Your task to perform on an android device: Show me productivity apps on the Play Store Image 0: 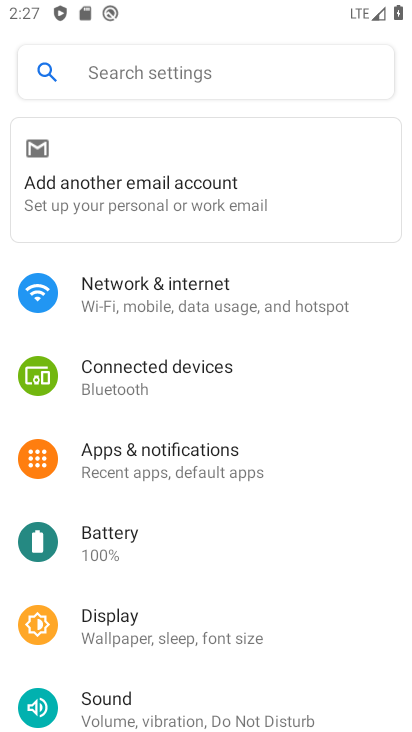
Step 0: press home button
Your task to perform on an android device: Show me productivity apps on the Play Store Image 1: 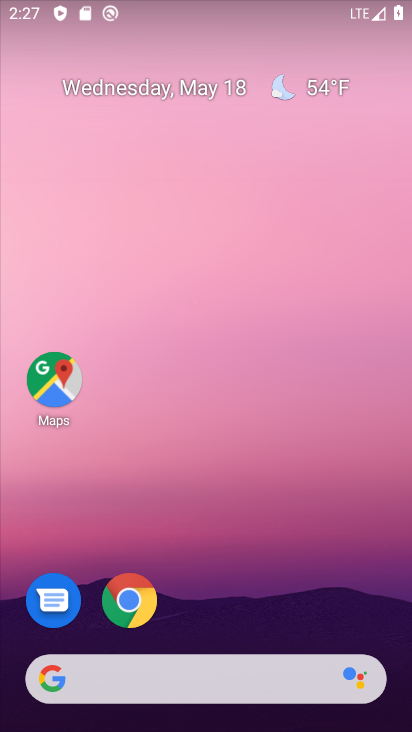
Step 1: drag from (128, 678) to (296, 81)
Your task to perform on an android device: Show me productivity apps on the Play Store Image 2: 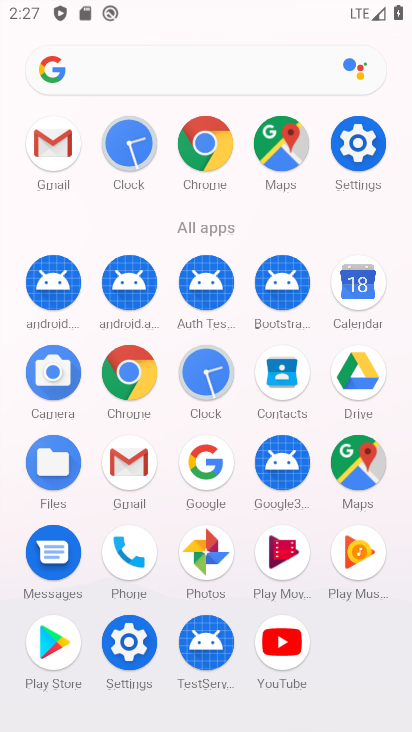
Step 2: click (56, 651)
Your task to perform on an android device: Show me productivity apps on the Play Store Image 3: 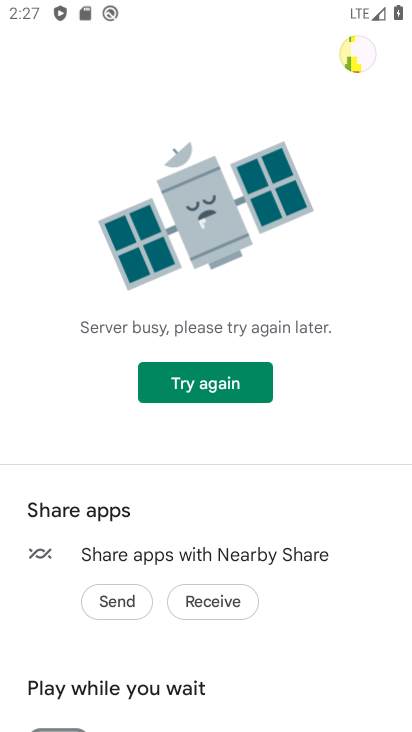
Step 3: click (220, 384)
Your task to perform on an android device: Show me productivity apps on the Play Store Image 4: 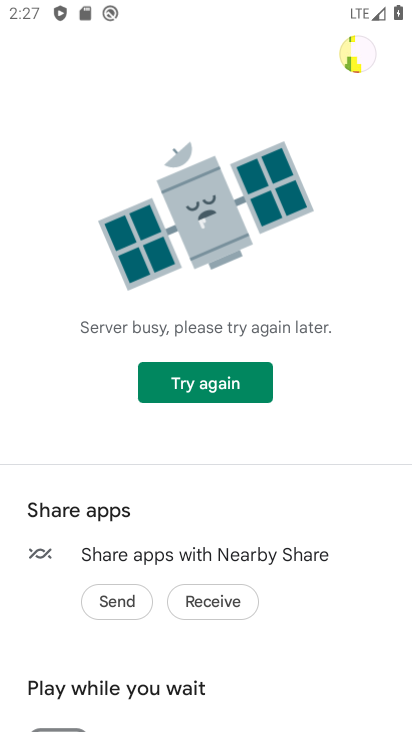
Step 4: press back button
Your task to perform on an android device: Show me productivity apps on the Play Store Image 5: 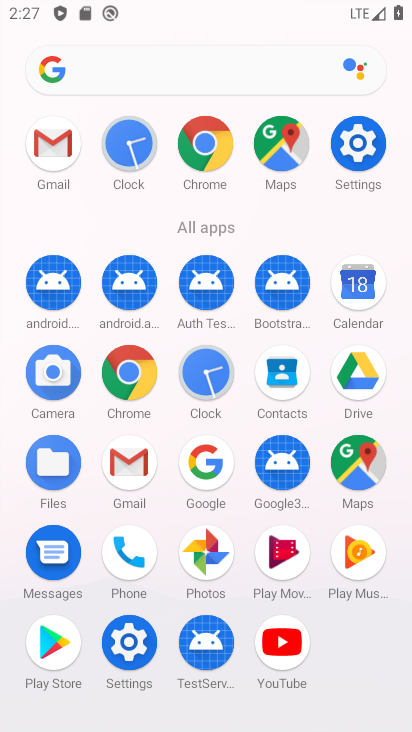
Step 5: click (47, 651)
Your task to perform on an android device: Show me productivity apps on the Play Store Image 6: 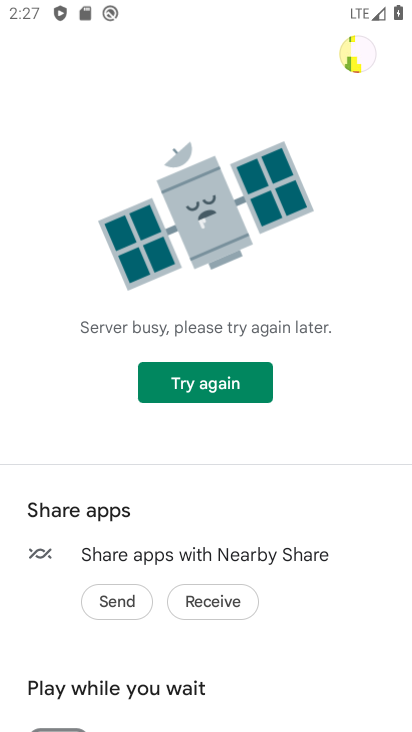
Step 6: click (207, 375)
Your task to perform on an android device: Show me productivity apps on the Play Store Image 7: 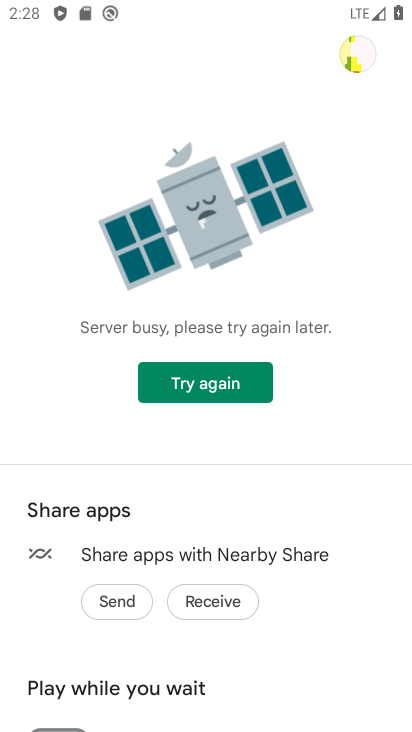
Step 7: click (208, 389)
Your task to perform on an android device: Show me productivity apps on the Play Store Image 8: 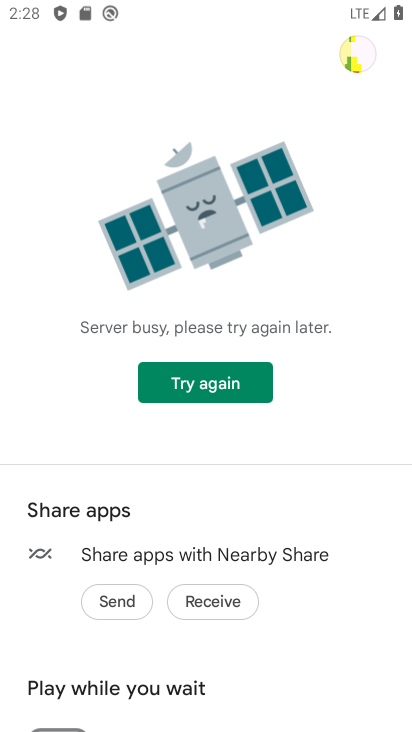
Step 8: task complete